Your task to perform on an android device: toggle priority inbox in the gmail app Image 0: 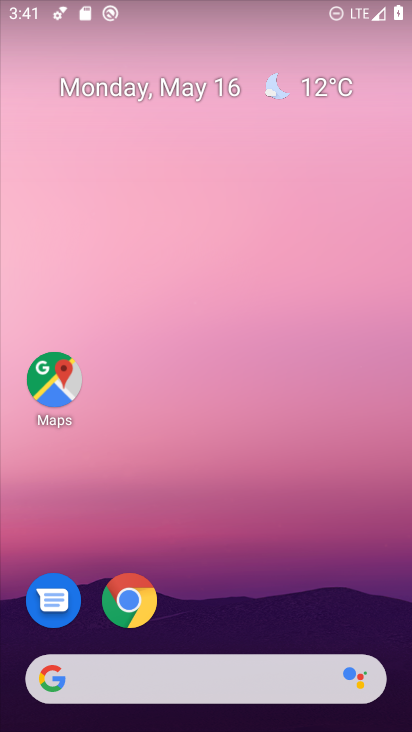
Step 0: drag from (276, 600) to (301, 33)
Your task to perform on an android device: toggle priority inbox in the gmail app Image 1: 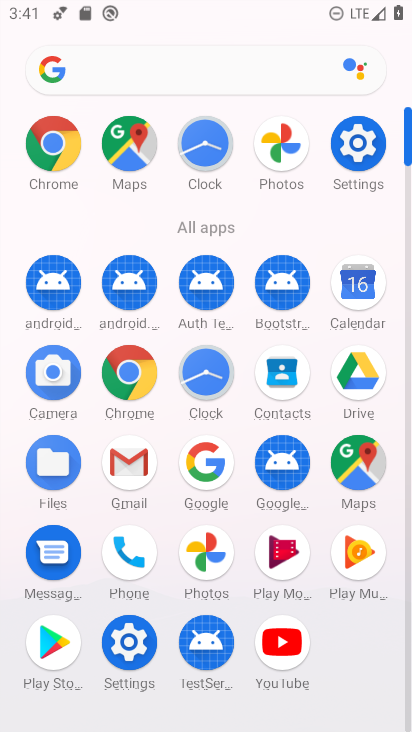
Step 1: click (125, 458)
Your task to perform on an android device: toggle priority inbox in the gmail app Image 2: 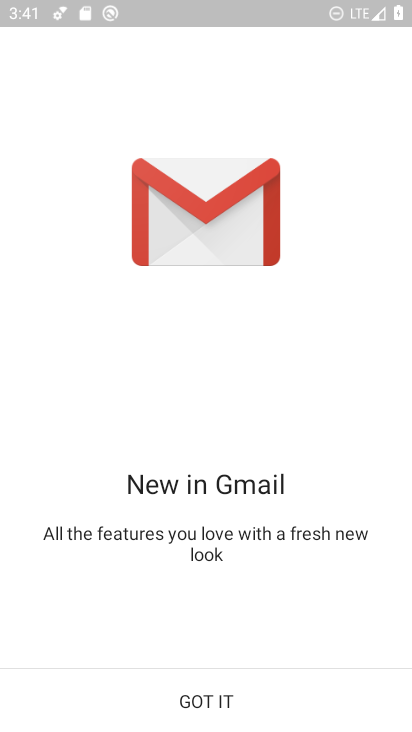
Step 2: click (202, 708)
Your task to perform on an android device: toggle priority inbox in the gmail app Image 3: 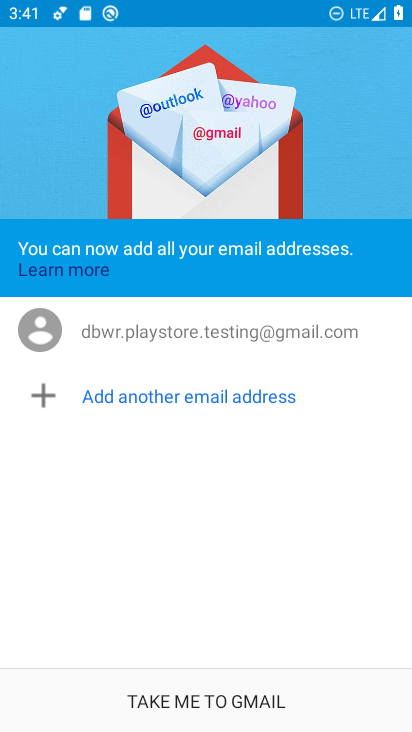
Step 3: click (227, 689)
Your task to perform on an android device: toggle priority inbox in the gmail app Image 4: 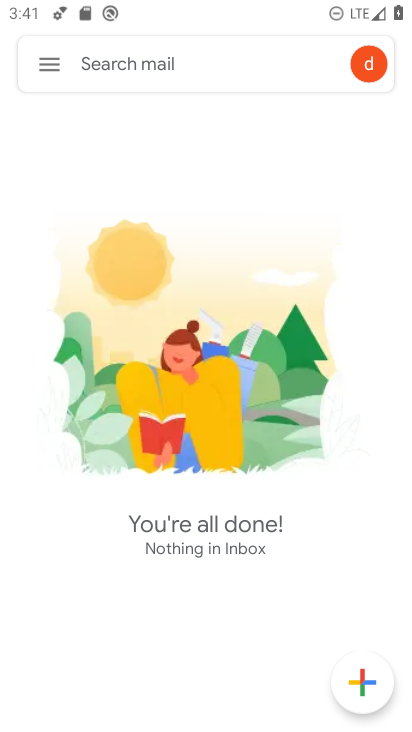
Step 4: click (37, 68)
Your task to perform on an android device: toggle priority inbox in the gmail app Image 5: 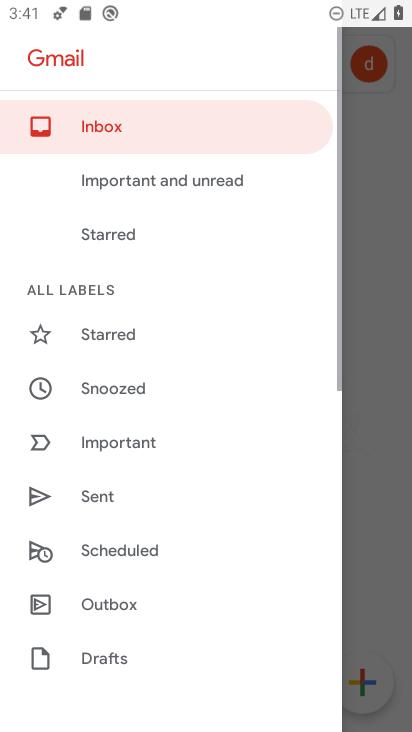
Step 5: drag from (189, 662) to (289, 112)
Your task to perform on an android device: toggle priority inbox in the gmail app Image 6: 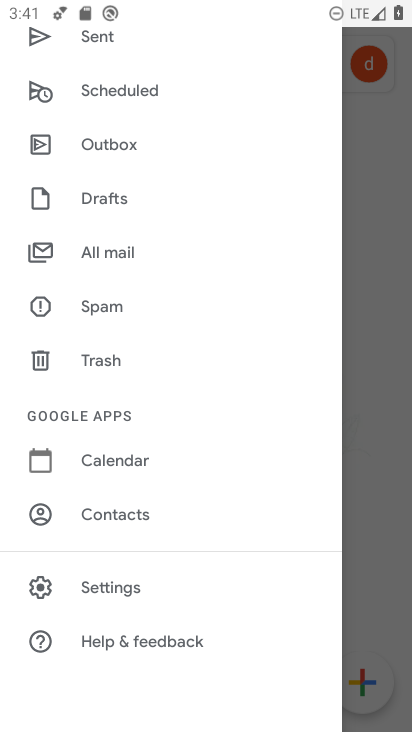
Step 6: click (104, 580)
Your task to perform on an android device: toggle priority inbox in the gmail app Image 7: 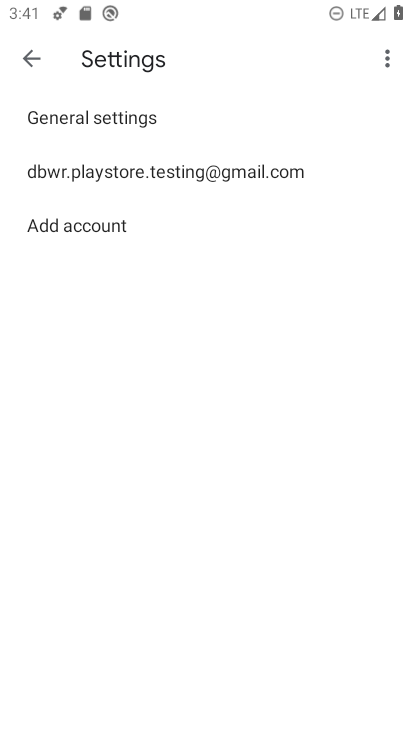
Step 7: click (152, 186)
Your task to perform on an android device: toggle priority inbox in the gmail app Image 8: 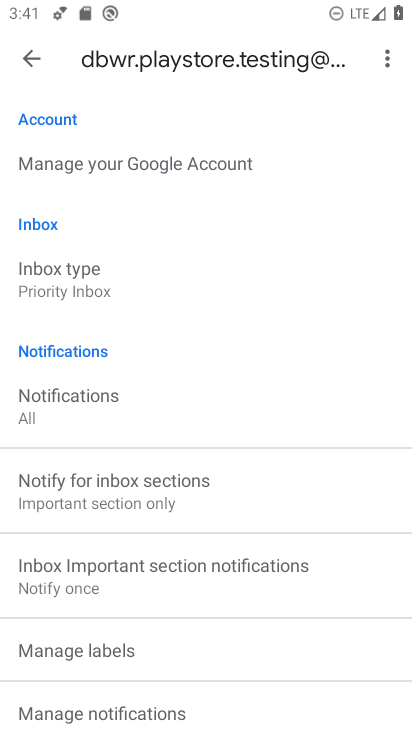
Step 8: click (89, 293)
Your task to perform on an android device: toggle priority inbox in the gmail app Image 9: 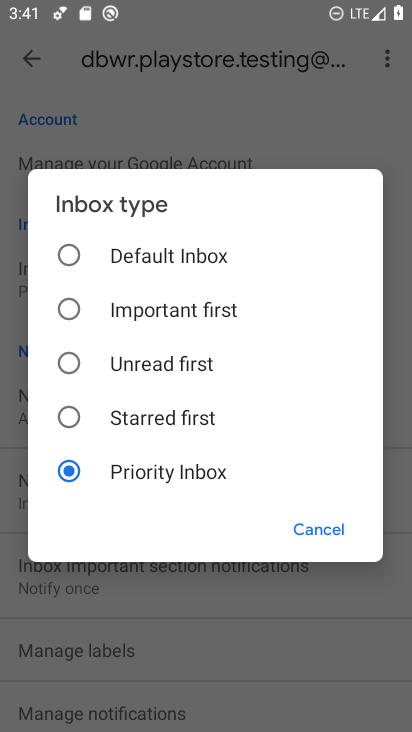
Step 9: click (167, 431)
Your task to perform on an android device: toggle priority inbox in the gmail app Image 10: 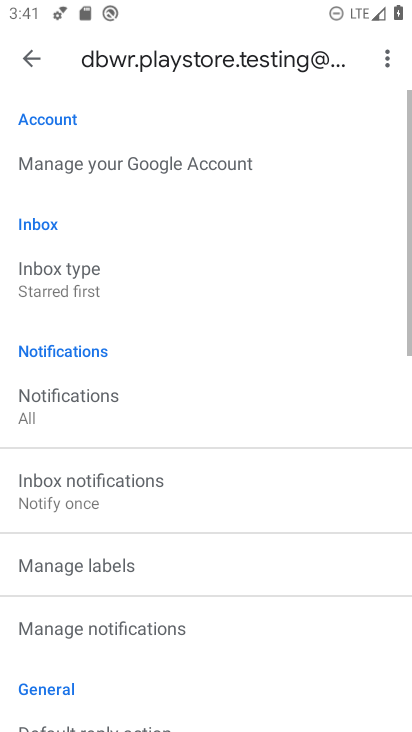
Step 10: task complete